Your task to perform on an android device: delete the emails in spam in the gmail app Image 0: 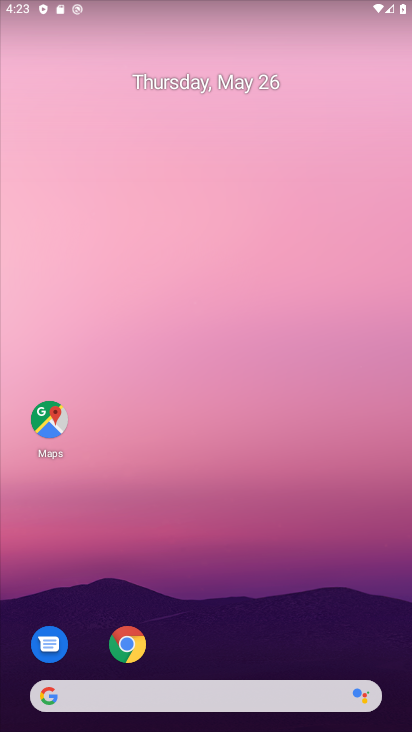
Step 0: drag from (225, 590) to (211, 25)
Your task to perform on an android device: delete the emails in spam in the gmail app Image 1: 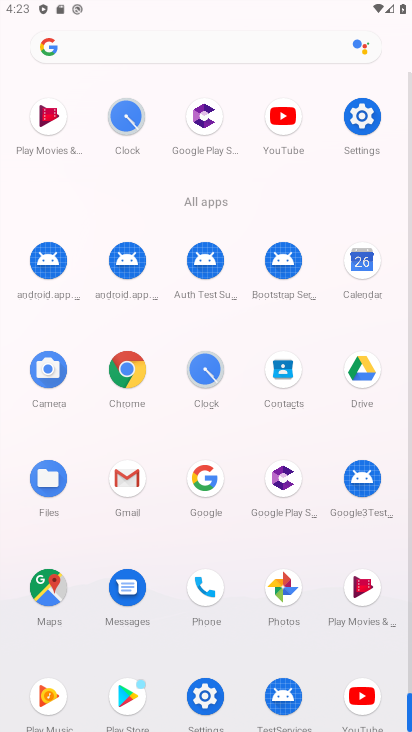
Step 1: drag from (9, 588) to (38, 234)
Your task to perform on an android device: delete the emails in spam in the gmail app Image 2: 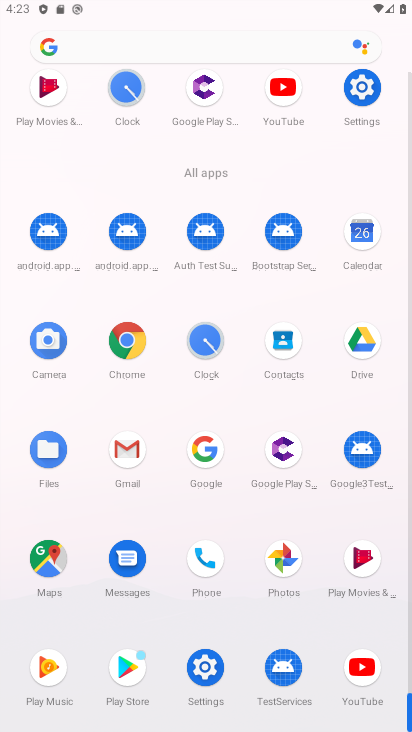
Step 2: drag from (9, 533) to (28, 199)
Your task to perform on an android device: delete the emails in spam in the gmail app Image 3: 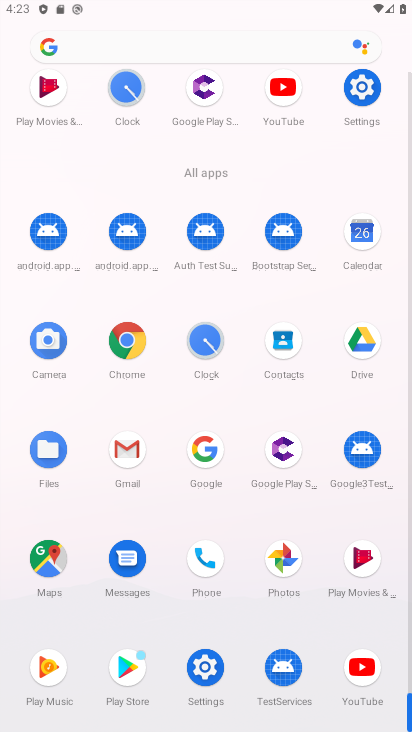
Step 3: drag from (6, 510) to (31, 284)
Your task to perform on an android device: delete the emails in spam in the gmail app Image 4: 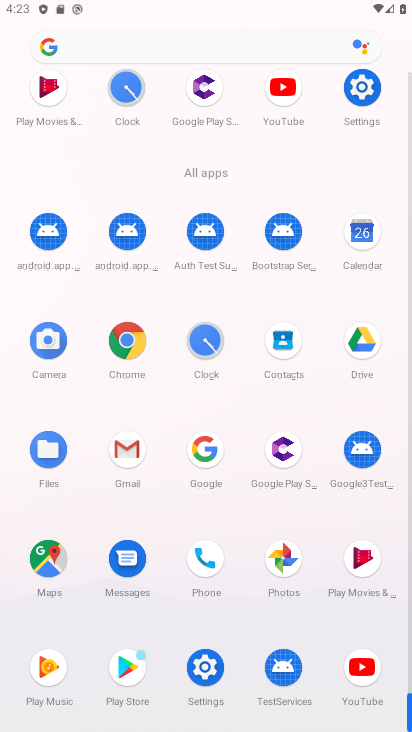
Step 4: click (129, 442)
Your task to perform on an android device: delete the emails in spam in the gmail app Image 5: 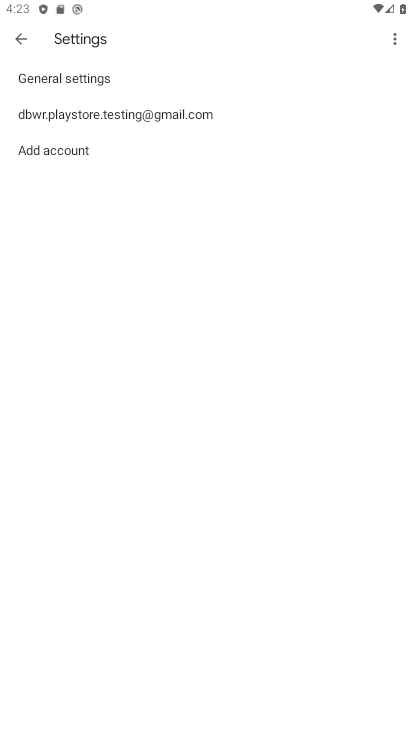
Step 5: click (25, 37)
Your task to perform on an android device: delete the emails in spam in the gmail app Image 6: 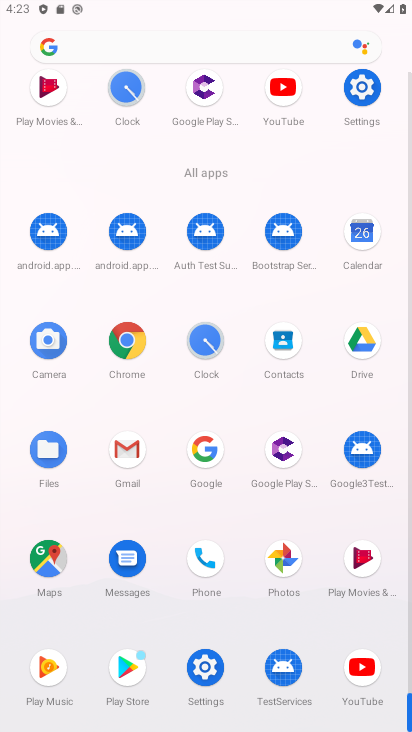
Step 6: click (124, 443)
Your task to perform on an android device: delete the emails in spam in the gmail app Image 7: 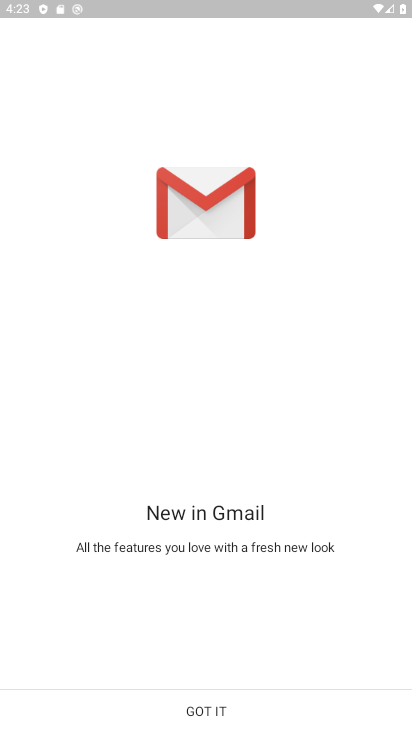
Step 7: click (205, 704)
Your task to perform on an android device: delete the emails in spam in the gmail app Image 8: 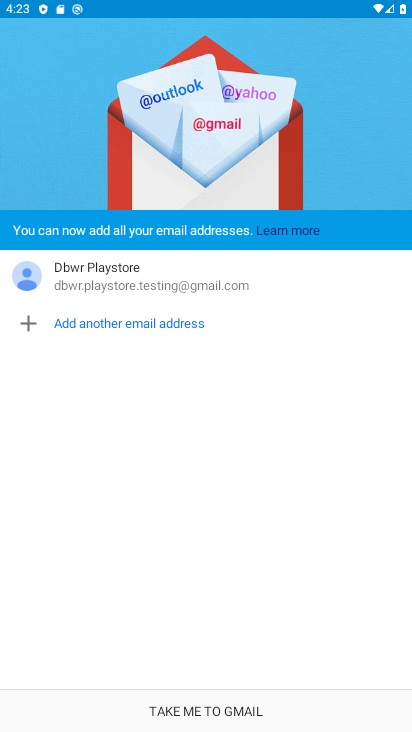
Step 8: click (180, 709)
Your task to perform on an android device: delete the emails in spam in the gmail app Image 9: 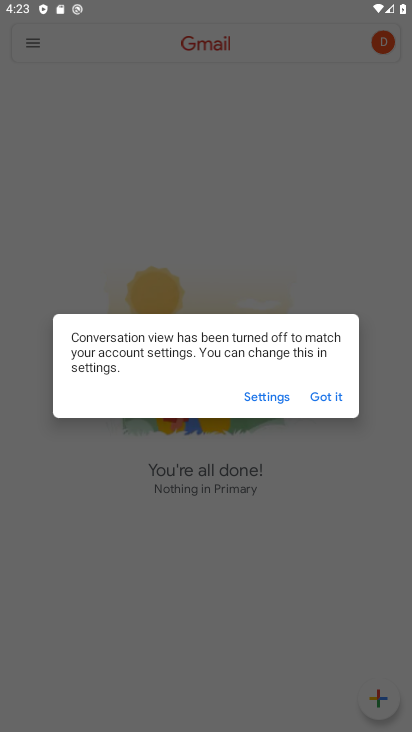
Step 9: click (316, 385)
Your task to perform on an android device: delete the emails in spam in the gmail app Image 10: 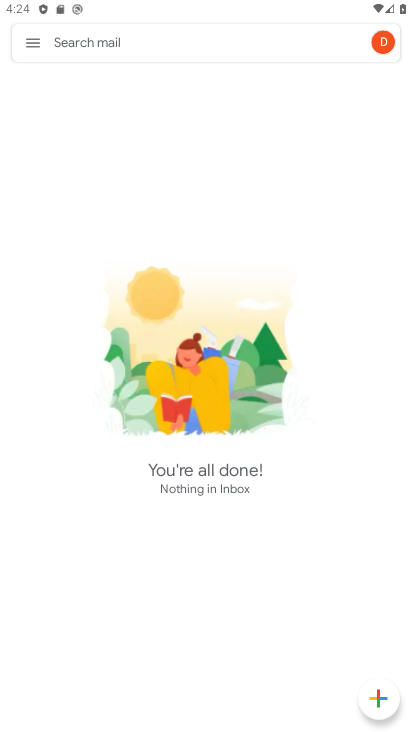
Step 10: click (23, 32)
Your task to perform on an android device: delete the emails in spam in the gmail app Image 11: 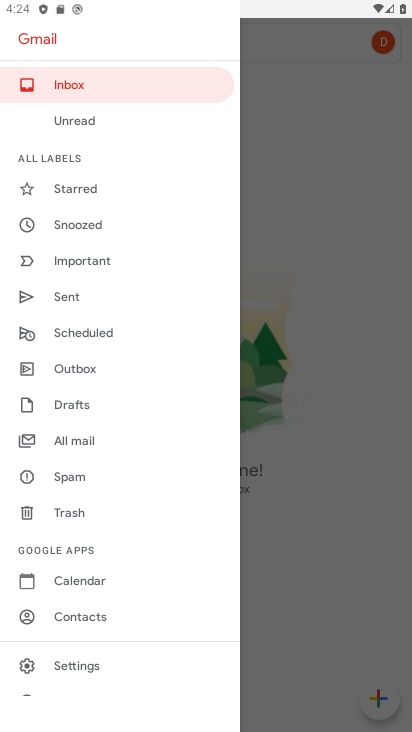
Step 11: click (86, 473)
Your task to perform on an android device: delete the emails in spam in the gmail app Image 12: 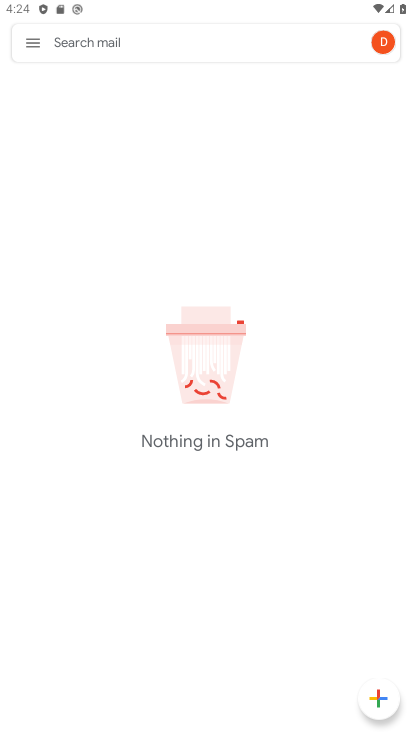
Step 12: task complete